Your task to perform on an android device: check storage Image 0: 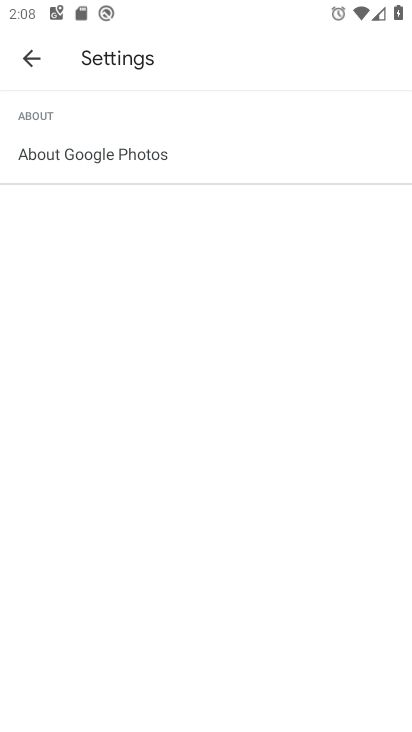
Step 0: press home button
Your task to perform on an android device: check storage Image 1: 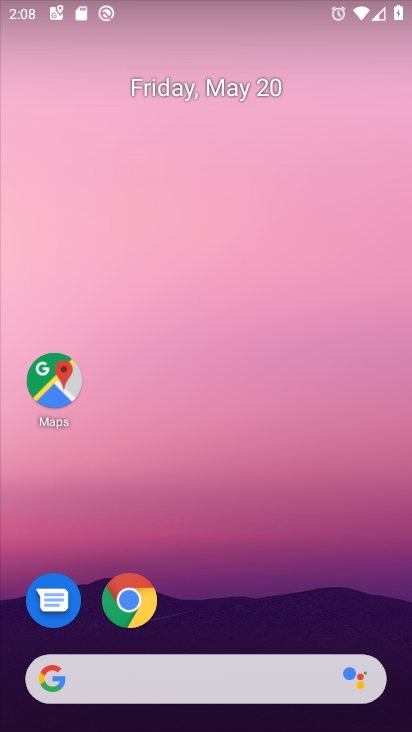
Step 1: drag from (255, 624) to (307, 103)
Your task to perform on an android device: check storage Image 2: 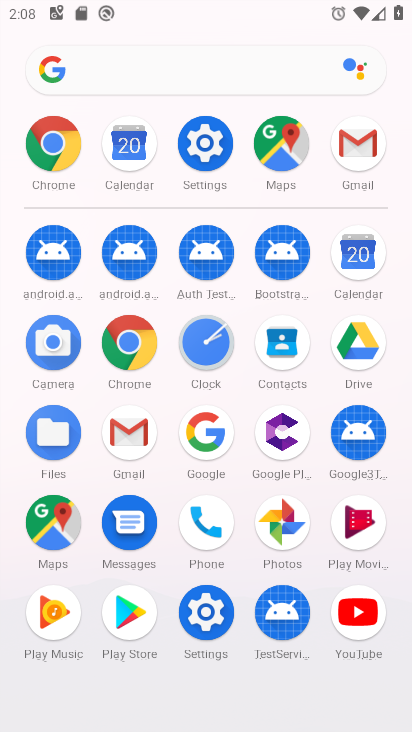
Step 2: click (215, 158)
Your task to perform on an android device: check storage Image 3: 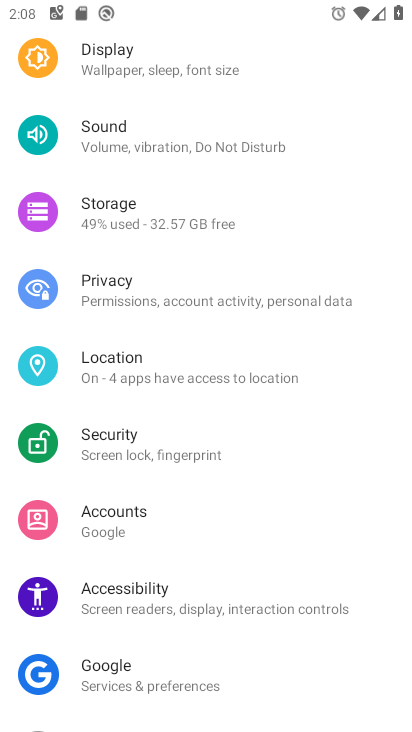
Step 3: click (212, 221)
Your task to perform on an android device: check storage Image 4: 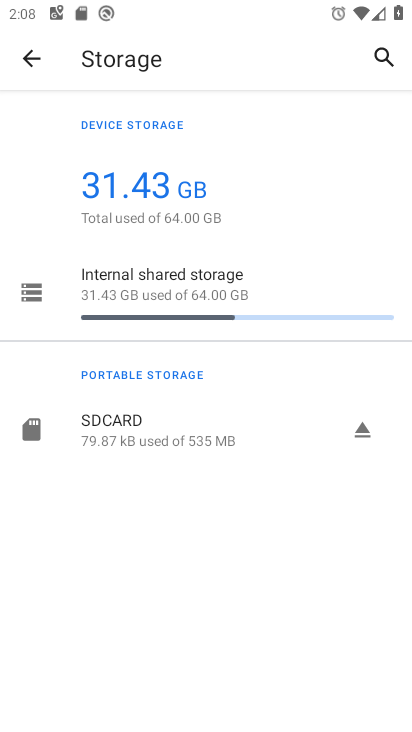
Step 4: click (168, 295)
Your task to perform on an android device: check storage Image 5: 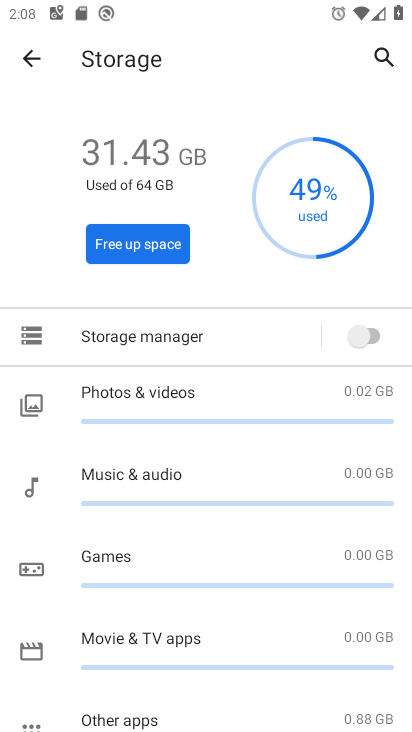
Step 5: task complete